Your task to perform on an android device: turn on notifications settings in the gmail app Image 0: 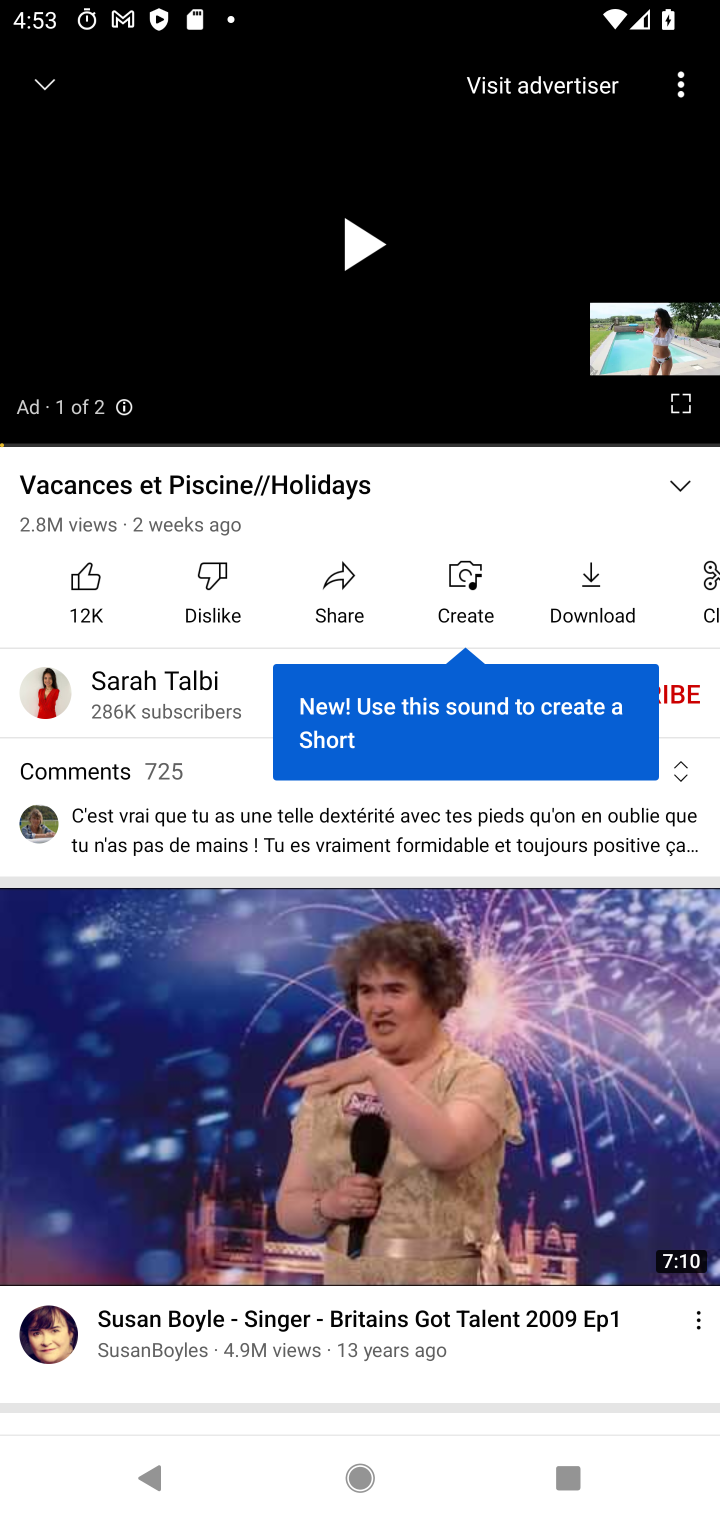
Step 0: press home button
Your task to perform on an android device: turn on notifications settings in the gmail app Image 1: 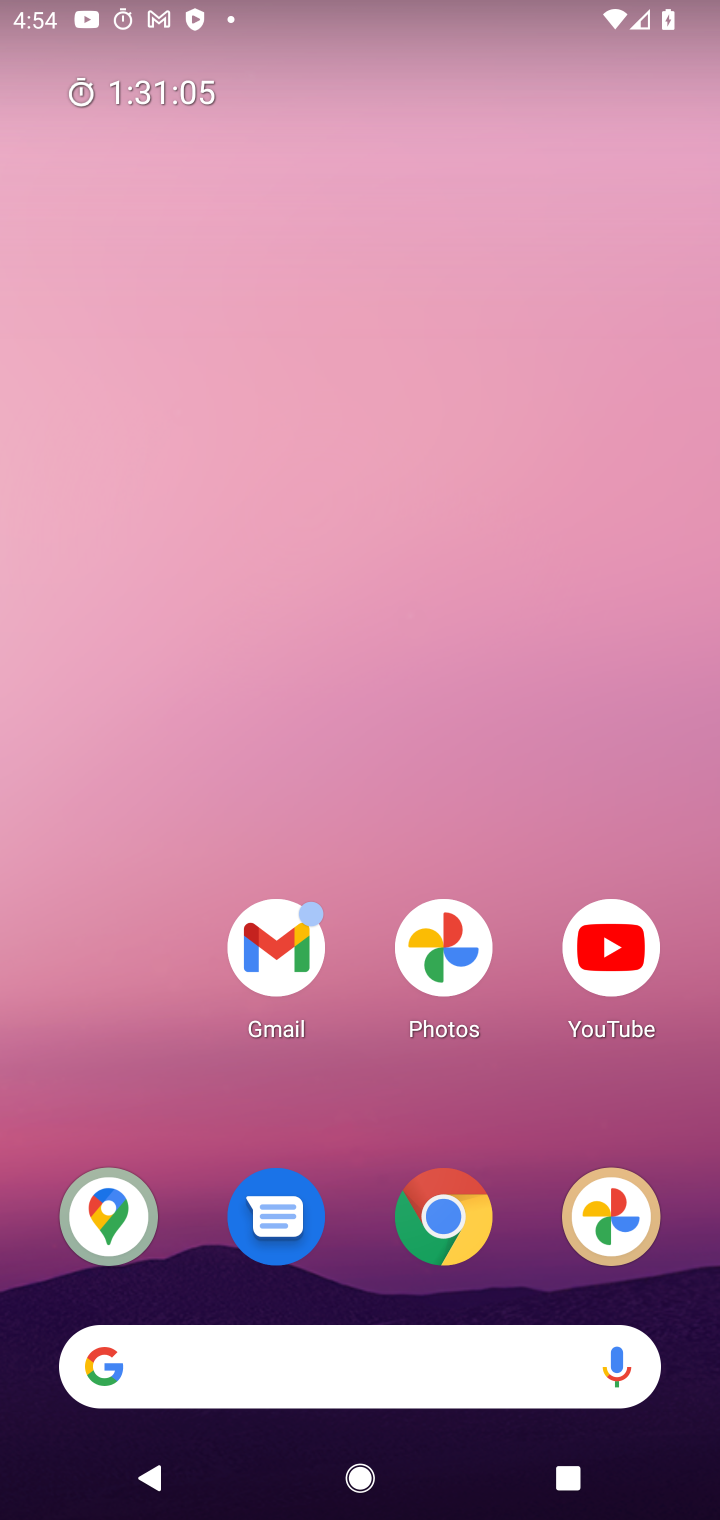
Step 1: drag from (35, 1012) to (312, 357)
Your task to perform on an android device: turn on notifications settings in the gmail app Image 2: 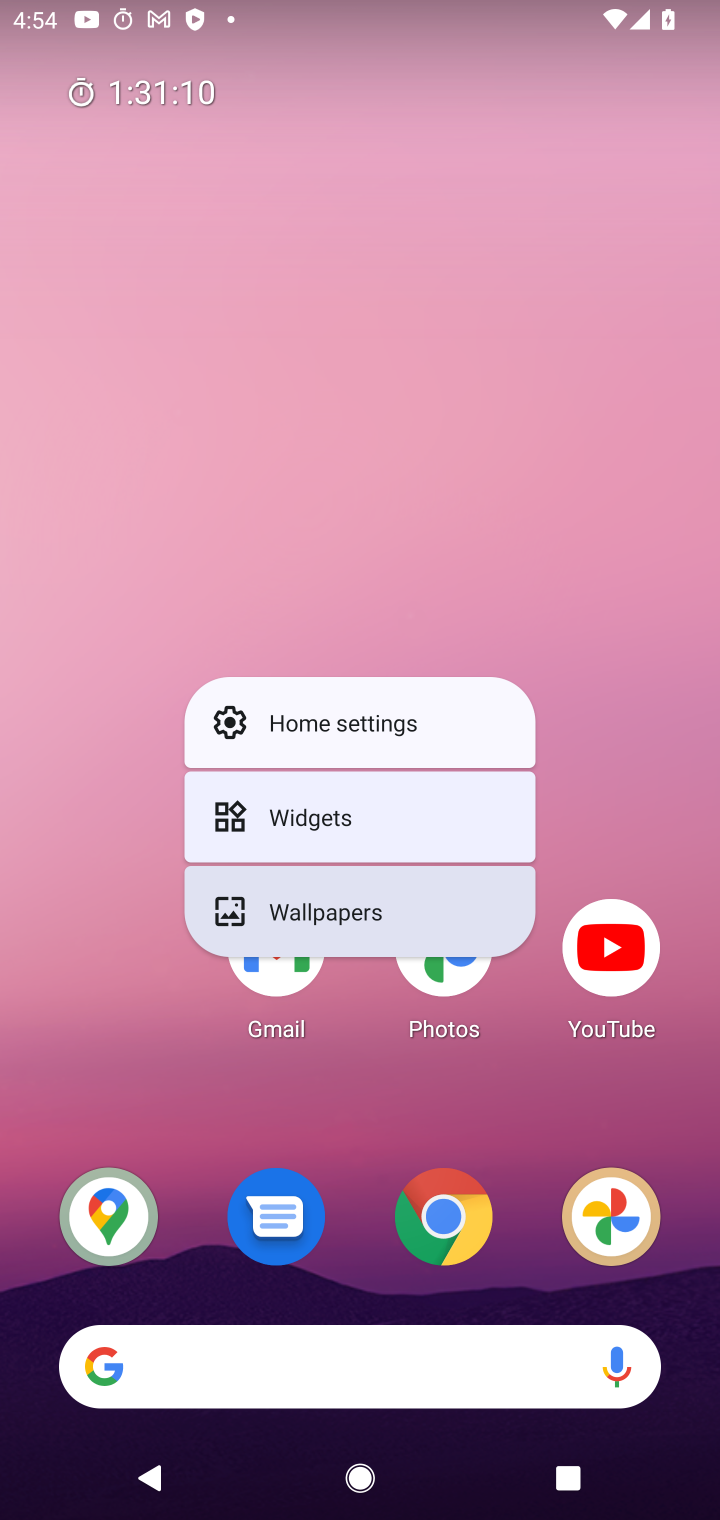
Step 2: click (272, 989)
Your task to perform on an android device: turn on notifications settings in the gmail app Image 3: 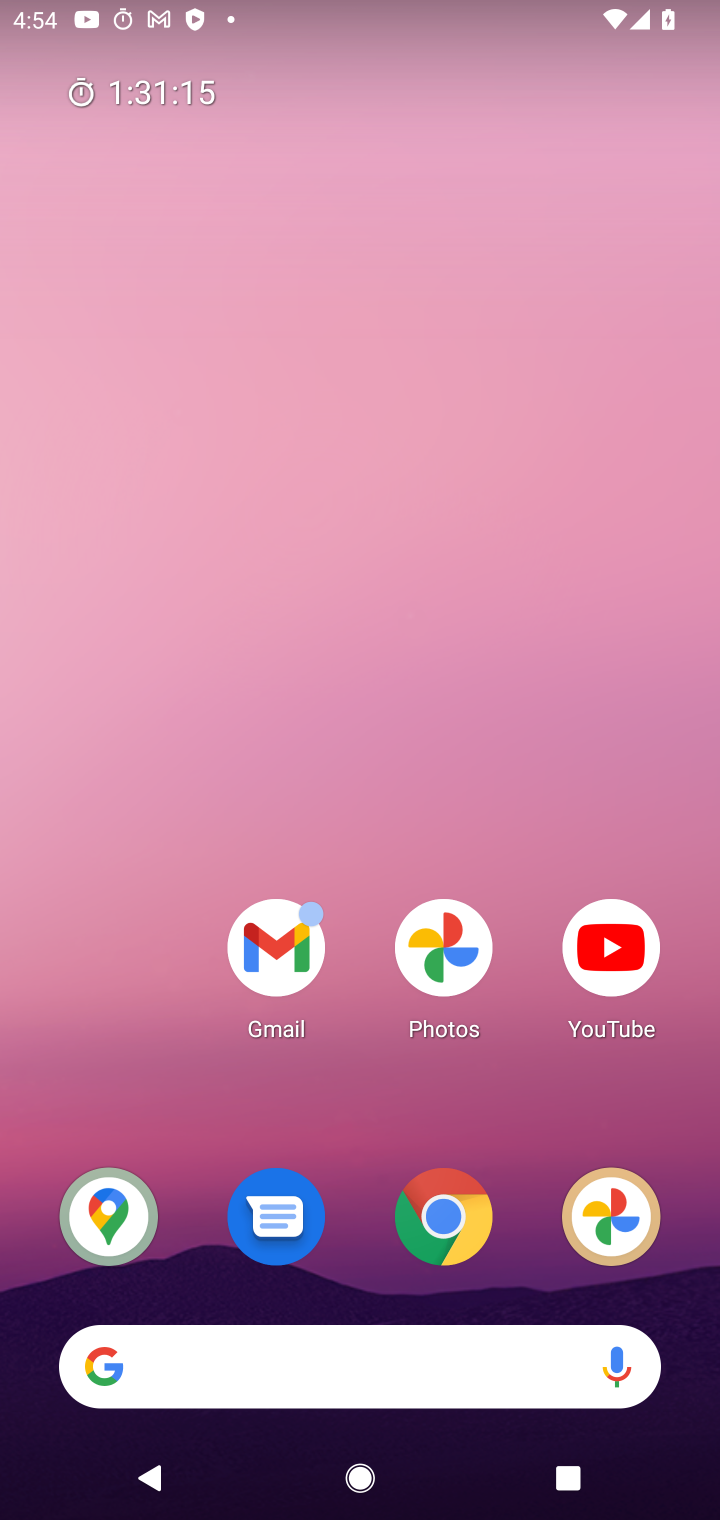
Step 3: click (273, 948)
Your task to perform on an android device: turn on notifications settings in the gmail app Image 4: 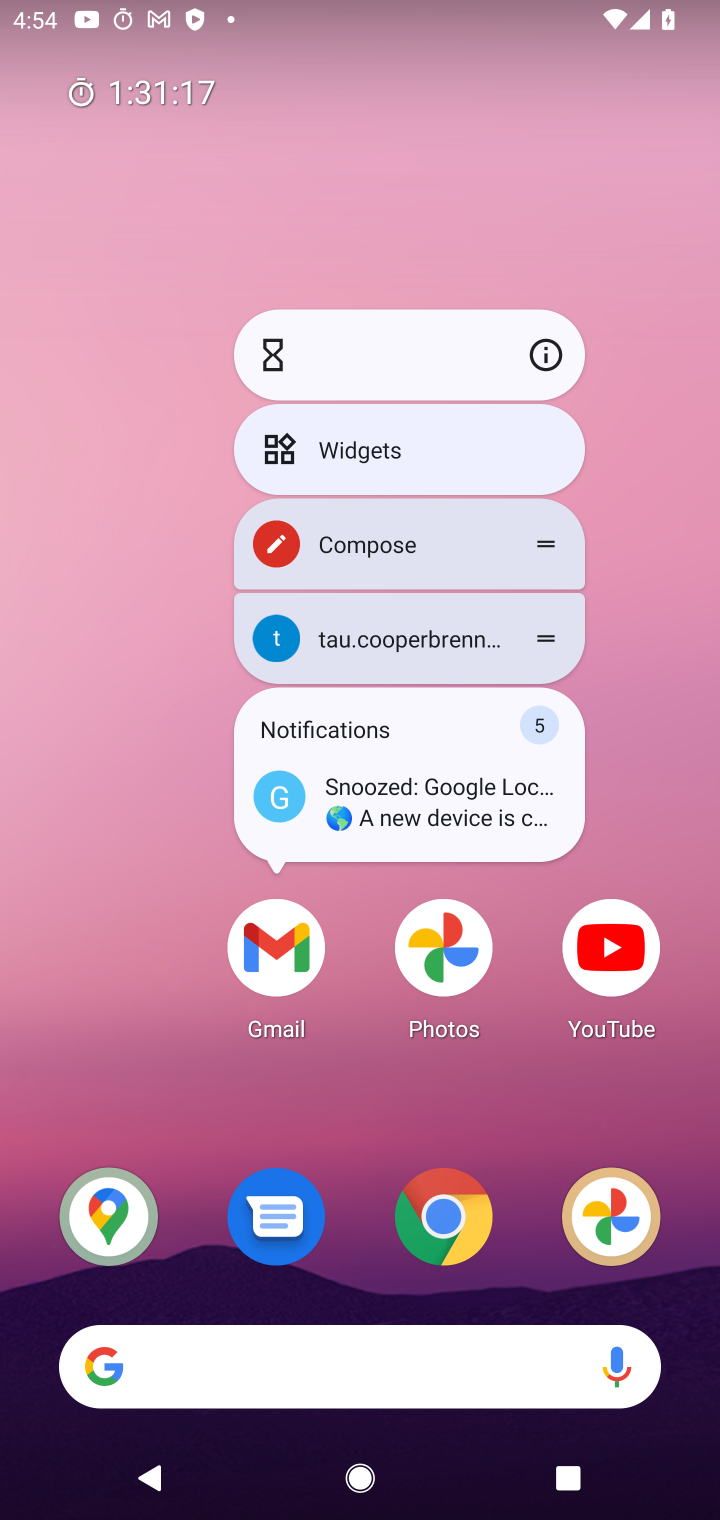
Step 4: click (273, 948)
Your task to perform on an android device: turn on notifications settings in the gmail app Image 5: 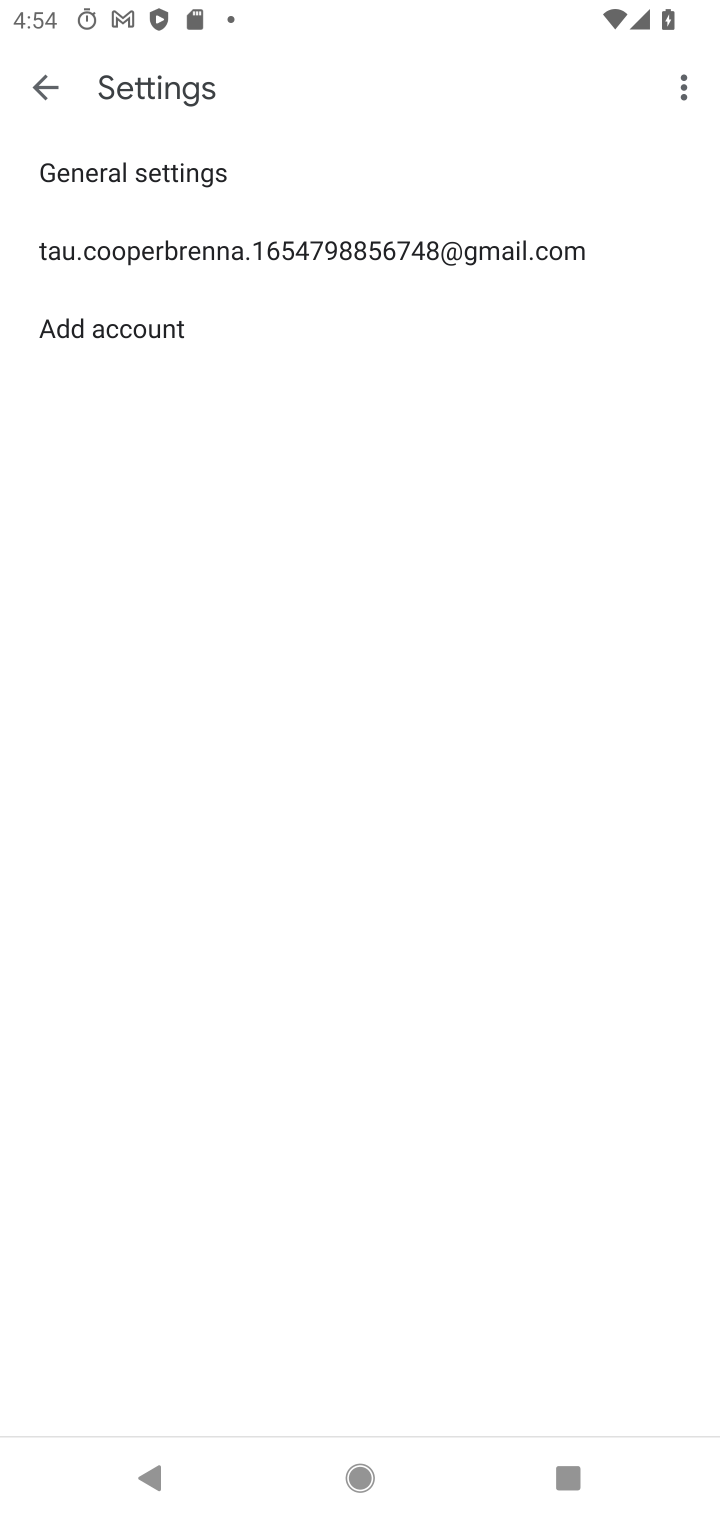
Step 5: click (36, 61)
Your task to perform on an android device: turn on notifications settings in the gmail app Image 6: 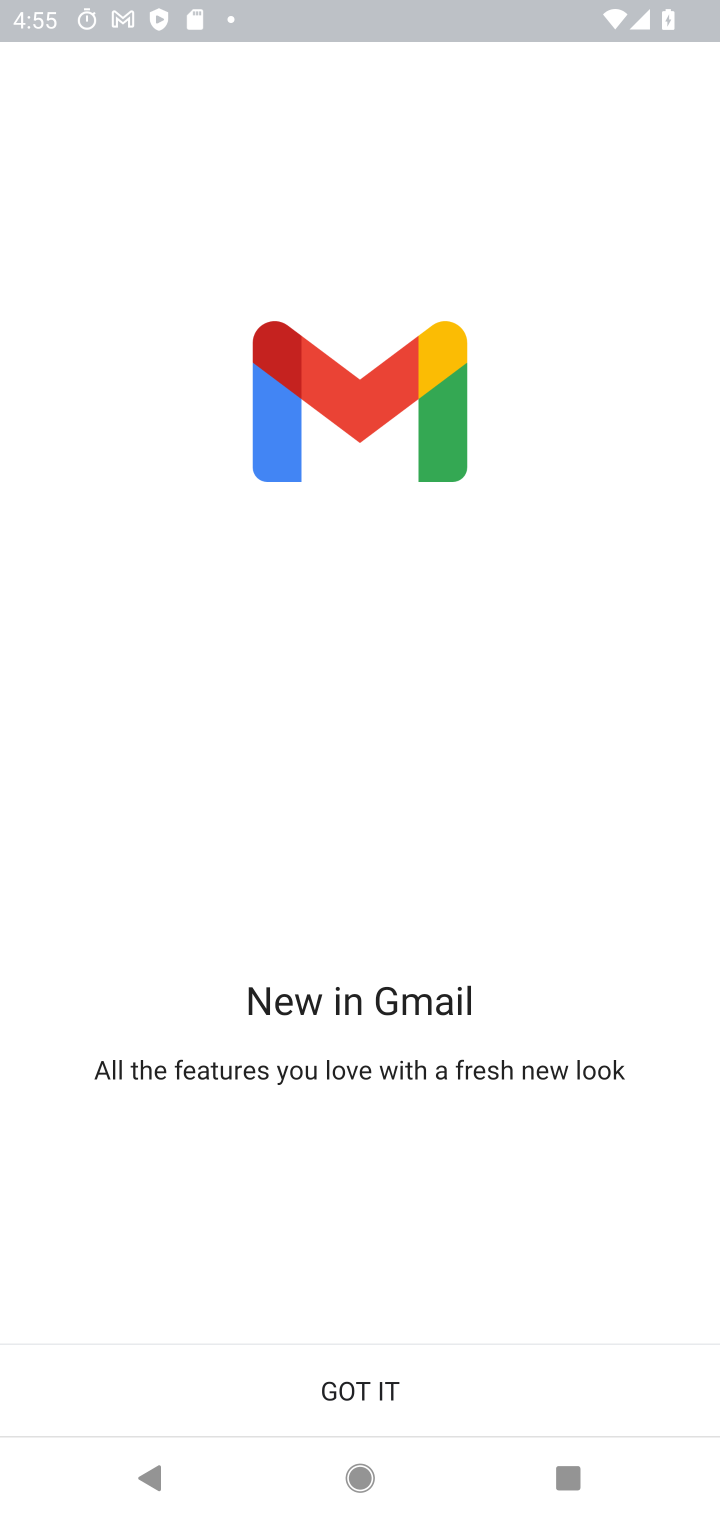
Step 6: click (430, 1385)
Your task to perform on an android device: turn on notifications settings in the gmail app Image 7: 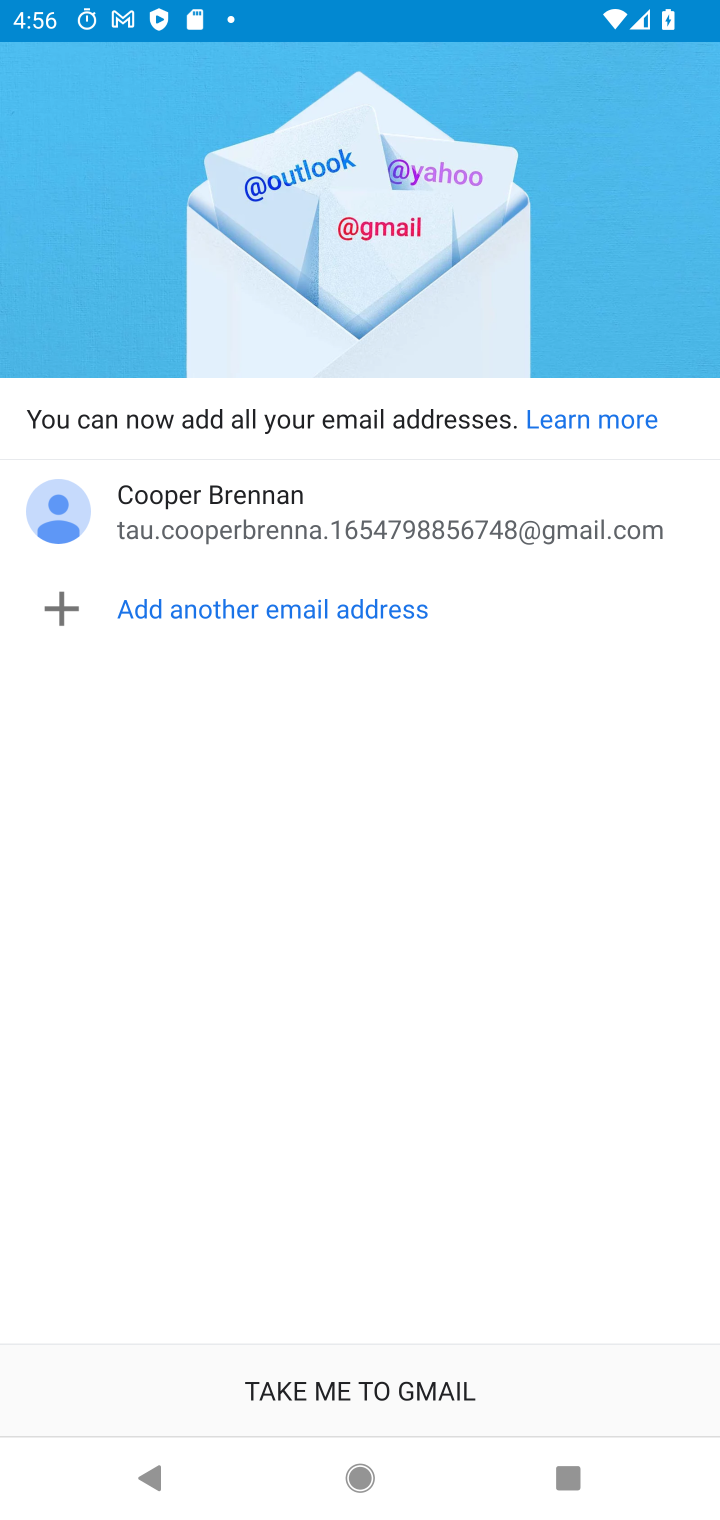
Step 7: click (365, 1375)
Your task to perform on an android device: turn on notifications settings in the gmail app Image 8: 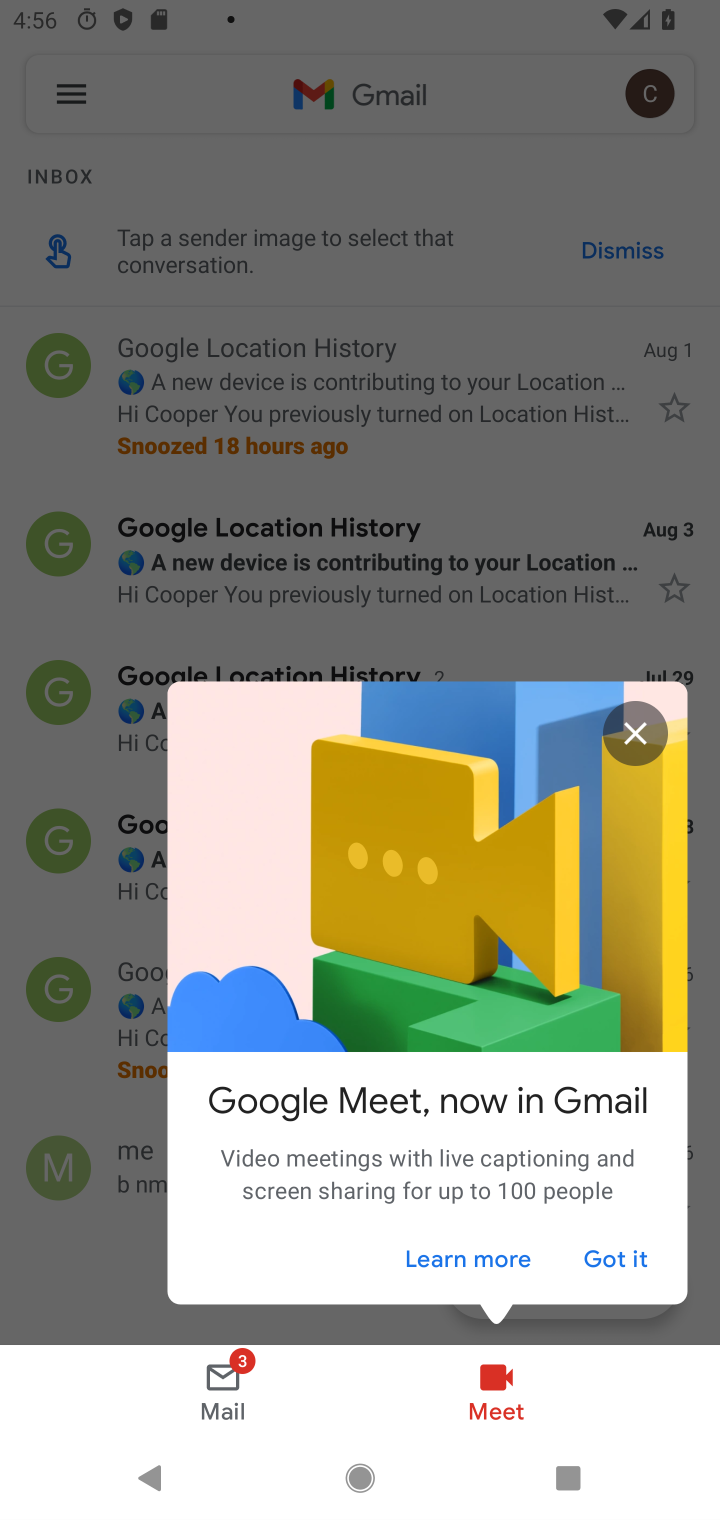
Step 8: click (609, 1246)
Your task to perform on an android device: turn on notifications settings in the gmail app Image 9: 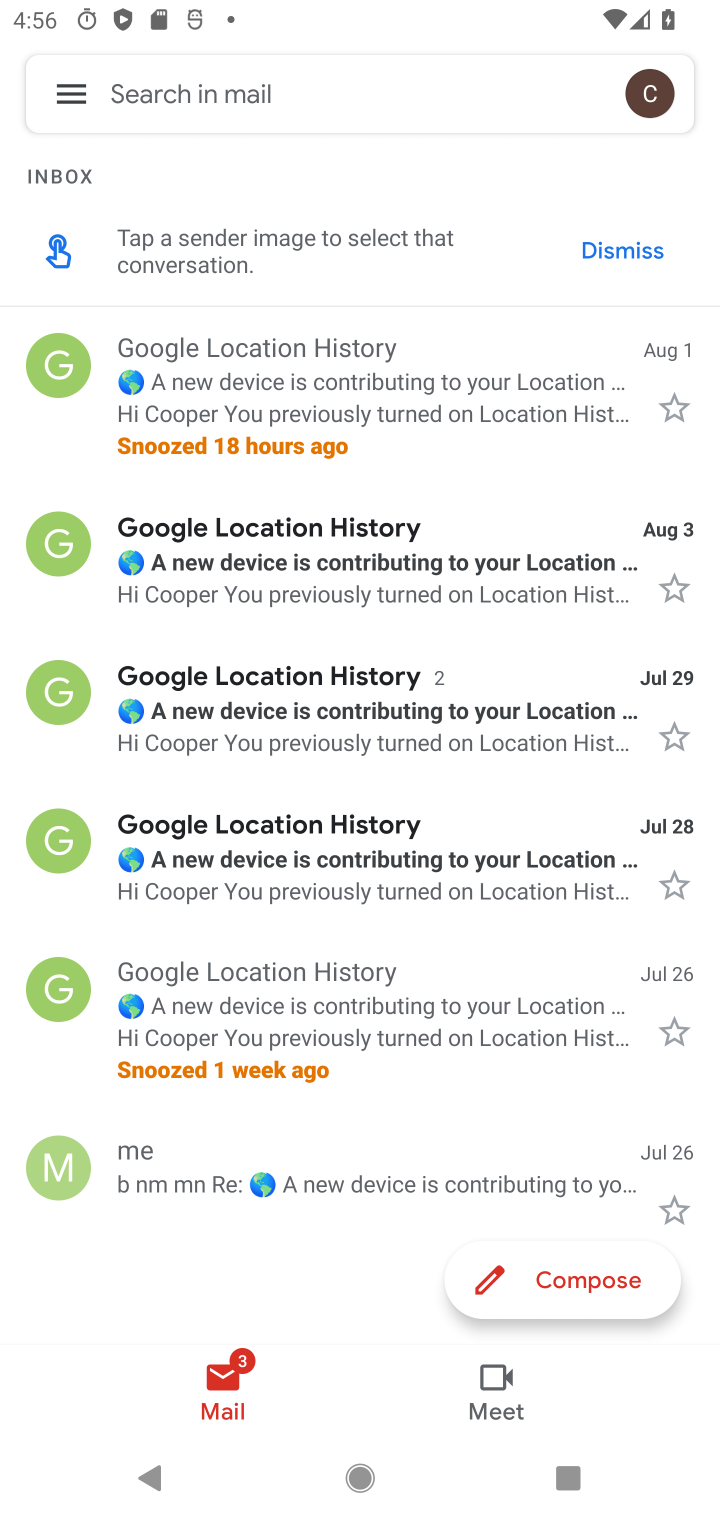
Step 9: click (72, 93)
Your task to perform on an android device: turn on notifications settings in the gmail app Image 10: 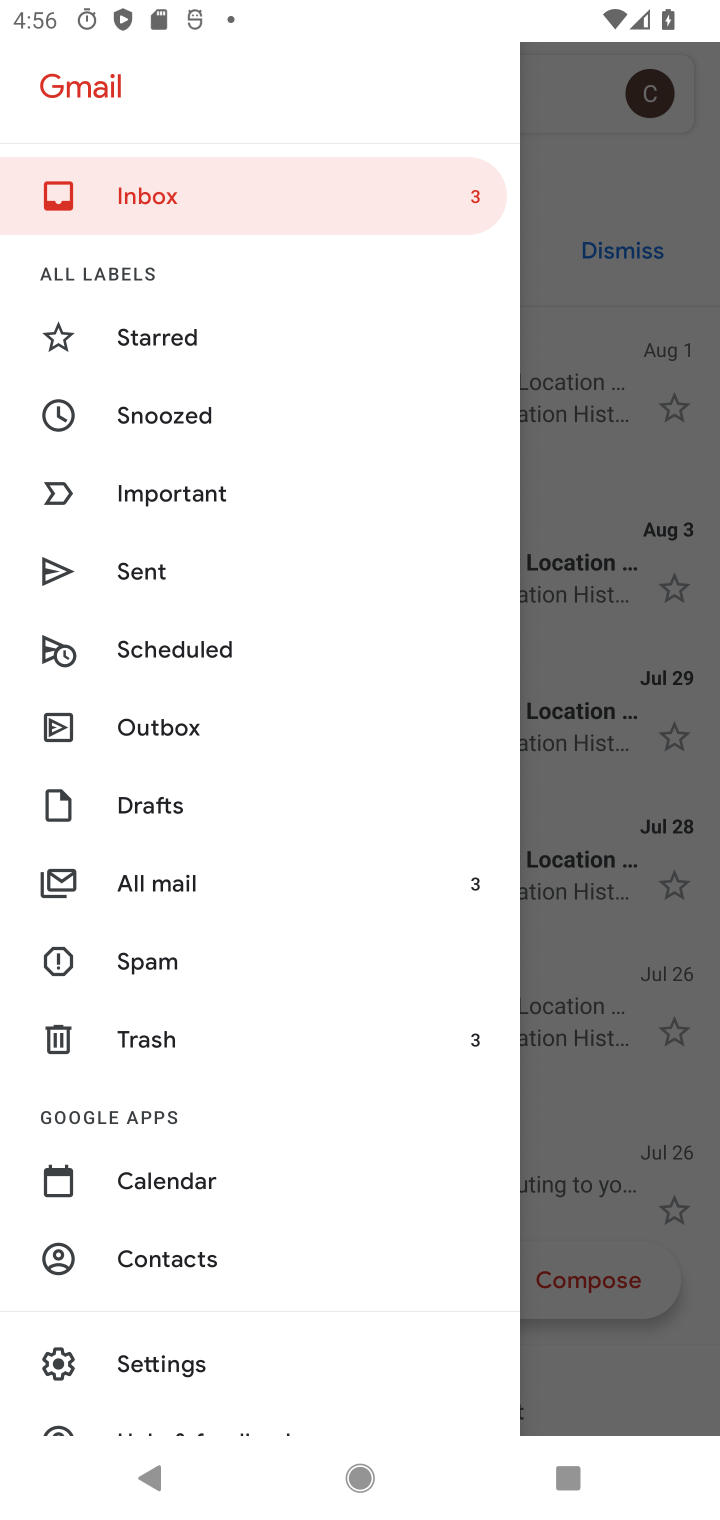
Step 10: click (152, 1362)
Your task to perform on an android device: turn on notifications settings in the gmail app Image 11: 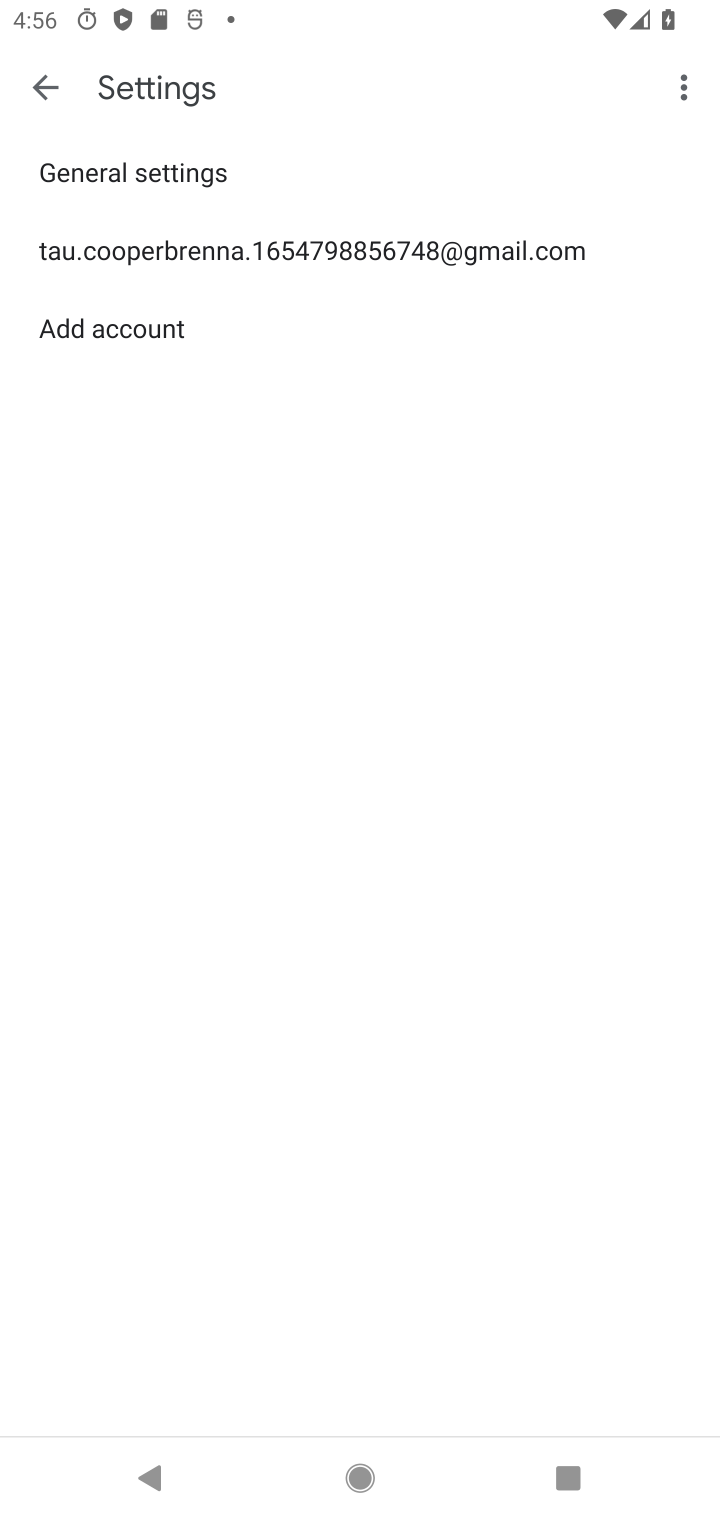
Step 11: click (248, 257)
Your task to perform on an android device: turn on notifications settings in the gmail app Image 12: 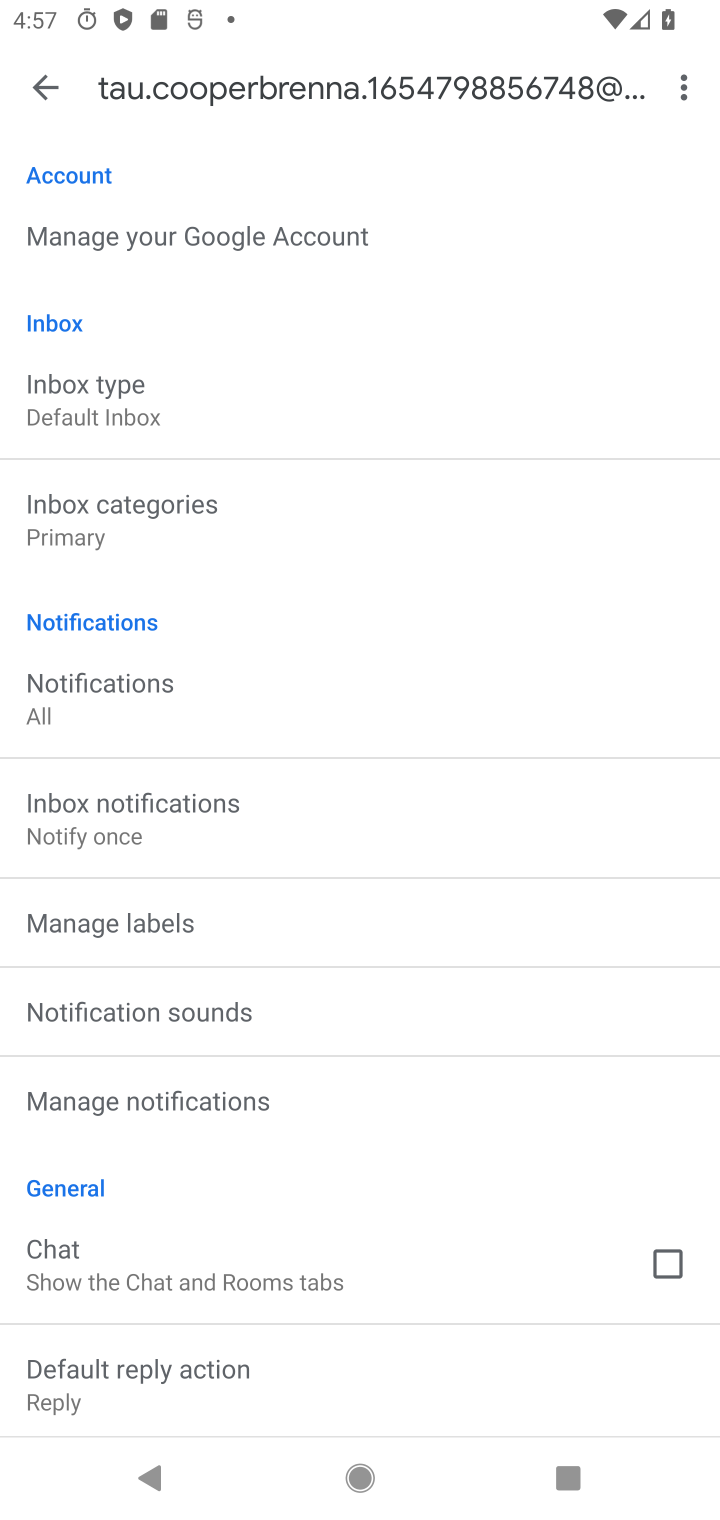
Step 12: click (88, 1107)
Your task to perform on an android device: turn on notifications settings in the gmail app Image 13: 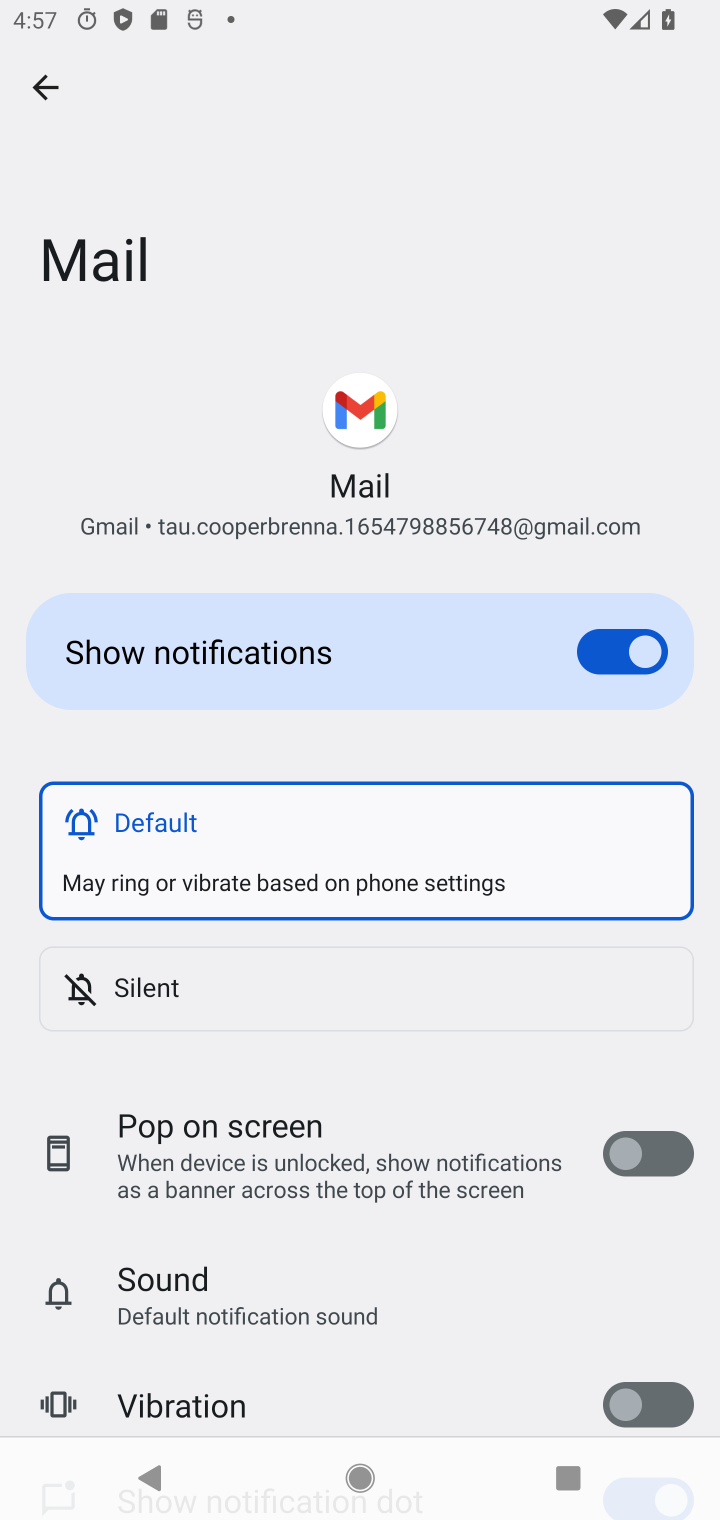
Step 13: task complete